Your task to perform on an android device: Open Google Image 0: 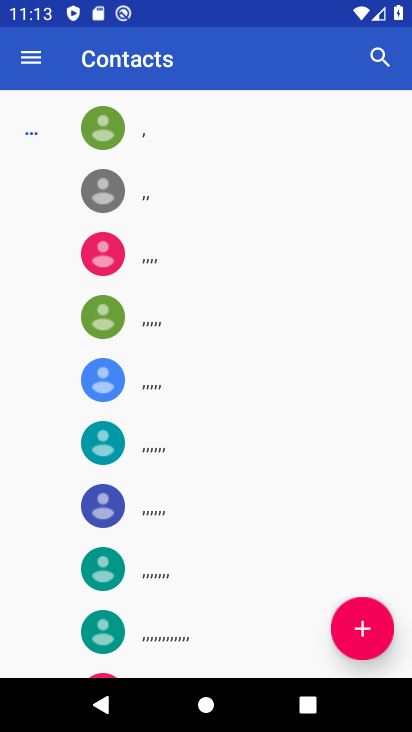
Step 0: press home button
Your task to perform on an android device: Open Google Image 1: 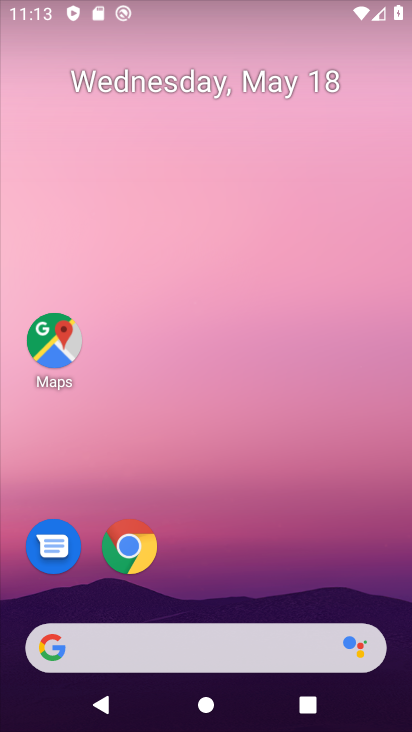
Step 1: drag from (193, 433) to (211, 129)
Your task to perform on an android device: Open Google Image 2: 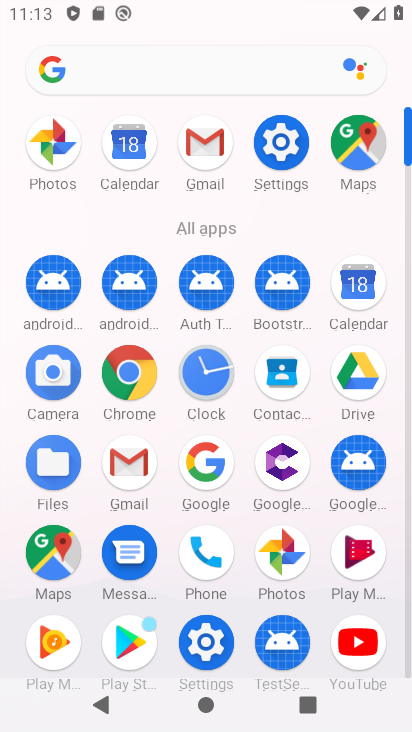
Step 2: click (209, 461)
Your task to perform on an android device: Open Google Image 3: 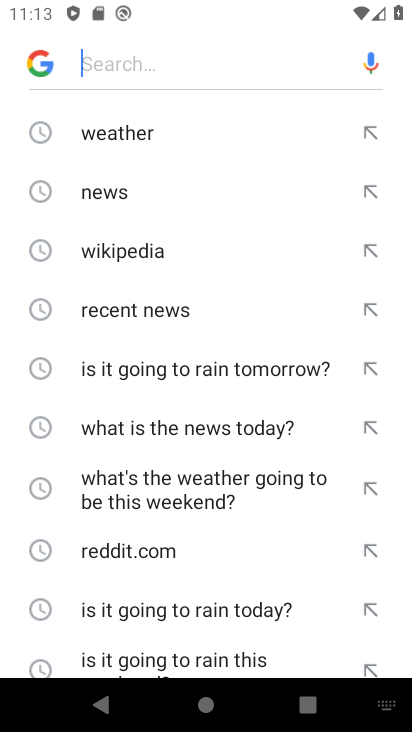
Step 3: task complete